Your task to perform on an android device: What's on the menu at Domino's? Image 0: 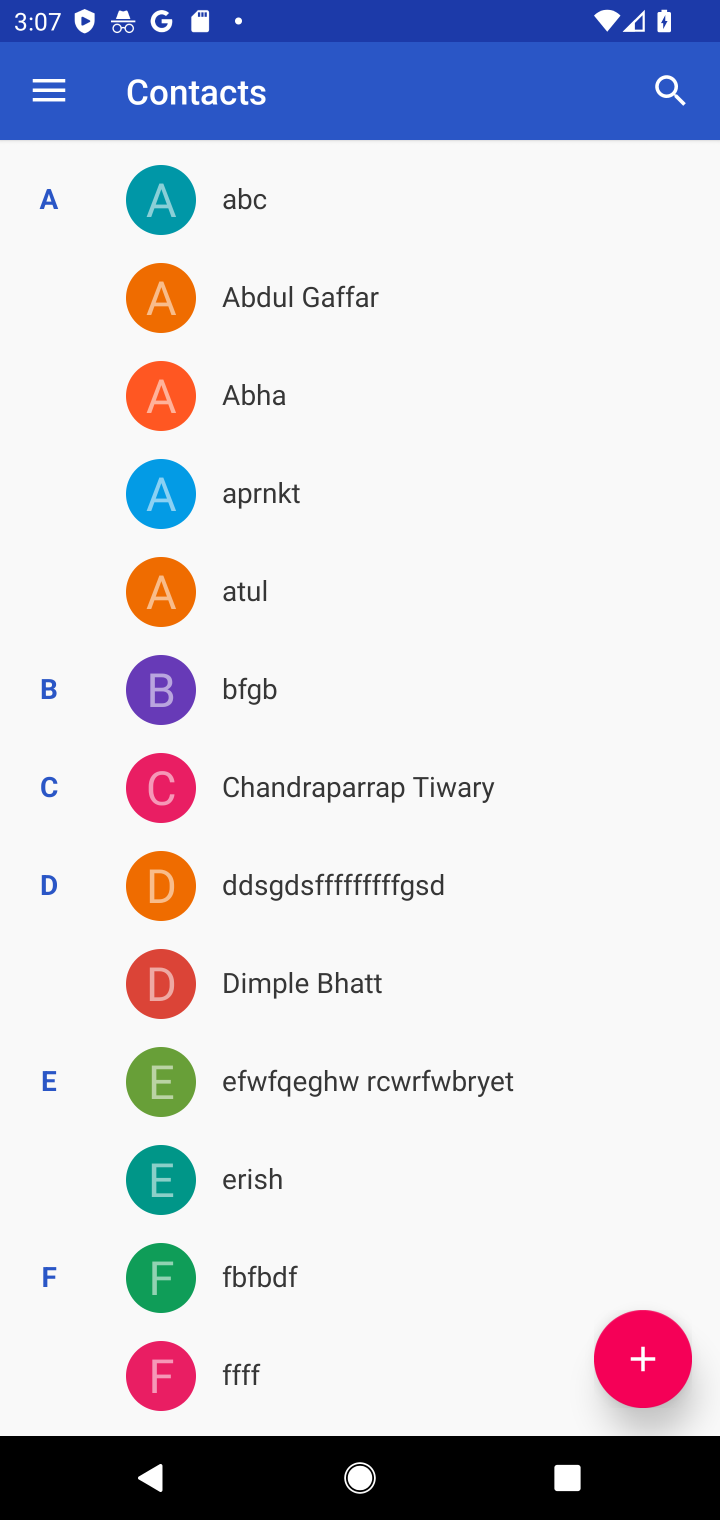
Step 0: press home button
Your task to perform on an android device: What's on the menu at Domino's? Image 1: 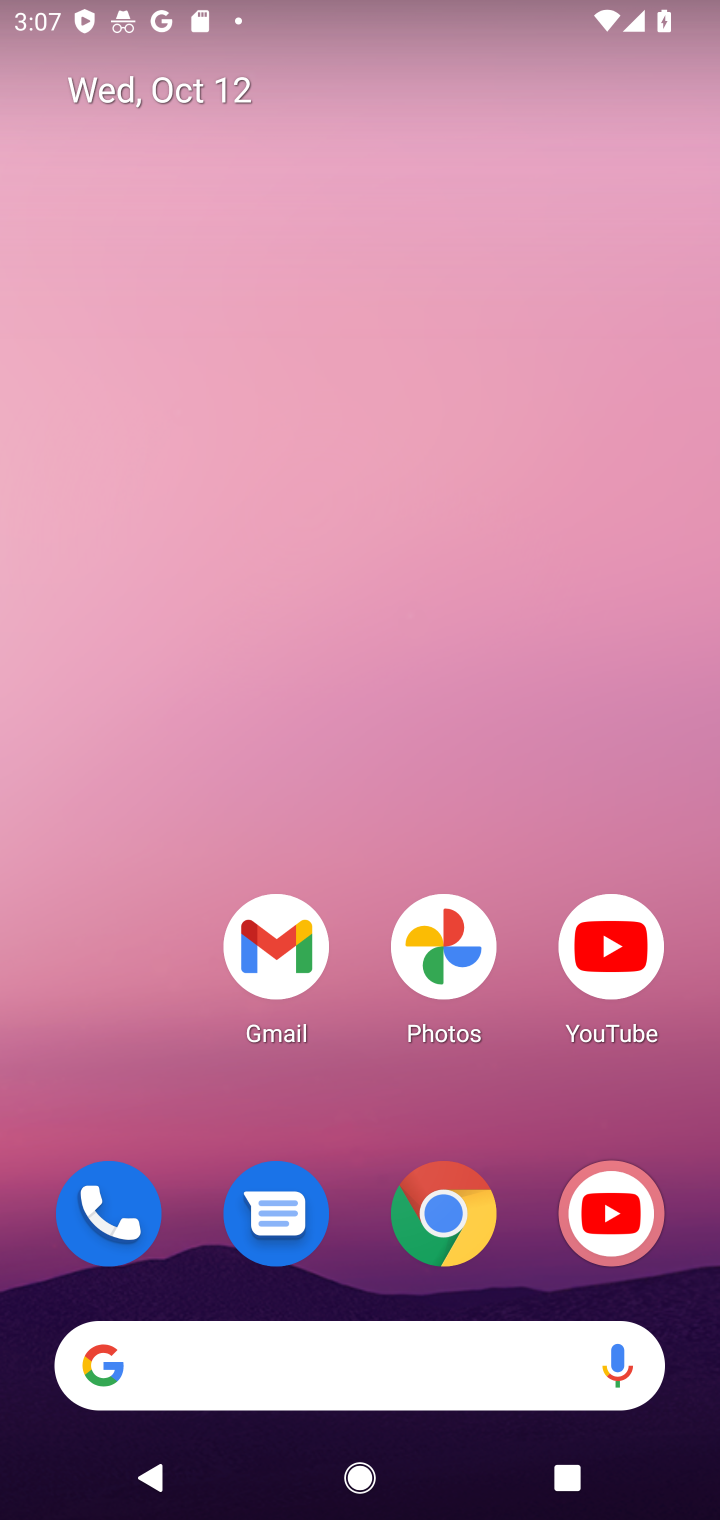
Step 1: click (307, 1360)
Your task to perform on an android device: What's on the menu at Domino's? Image 2: 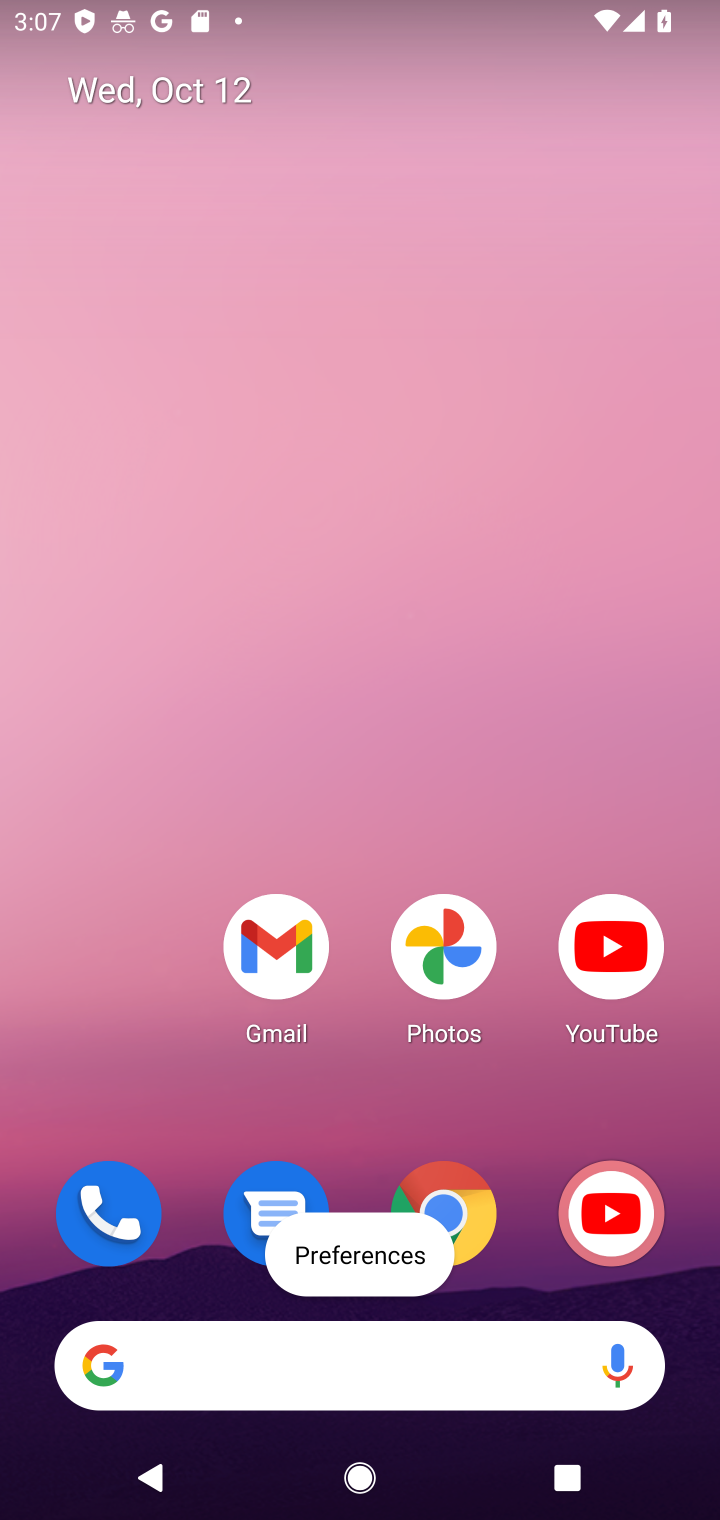
Step 2: click (242, 1365)
Your task to perform on an android device: What's on the menu at Domino's? Image 3: 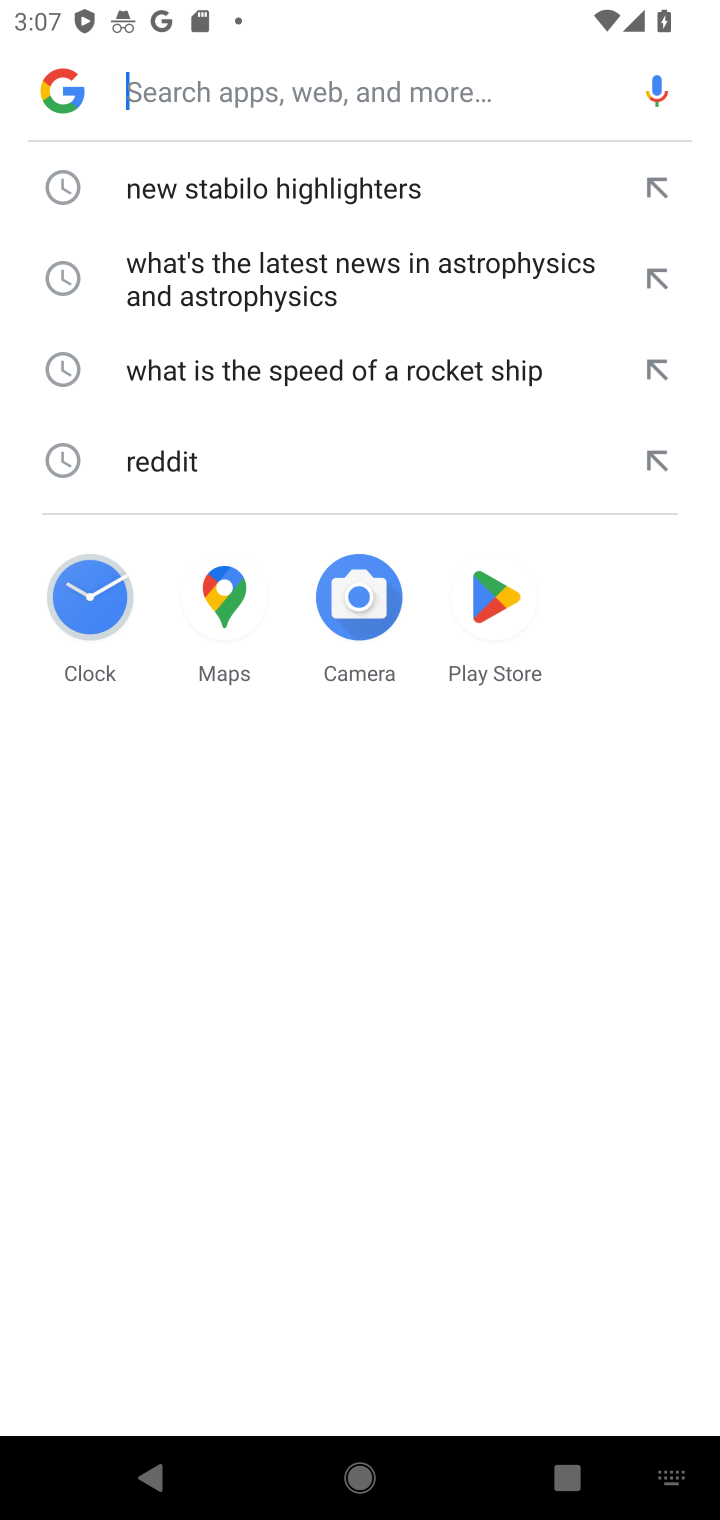
Step 3: click (231, 71)
Your task to perform on an android device: What's on the menu at Domino's? Image 4: 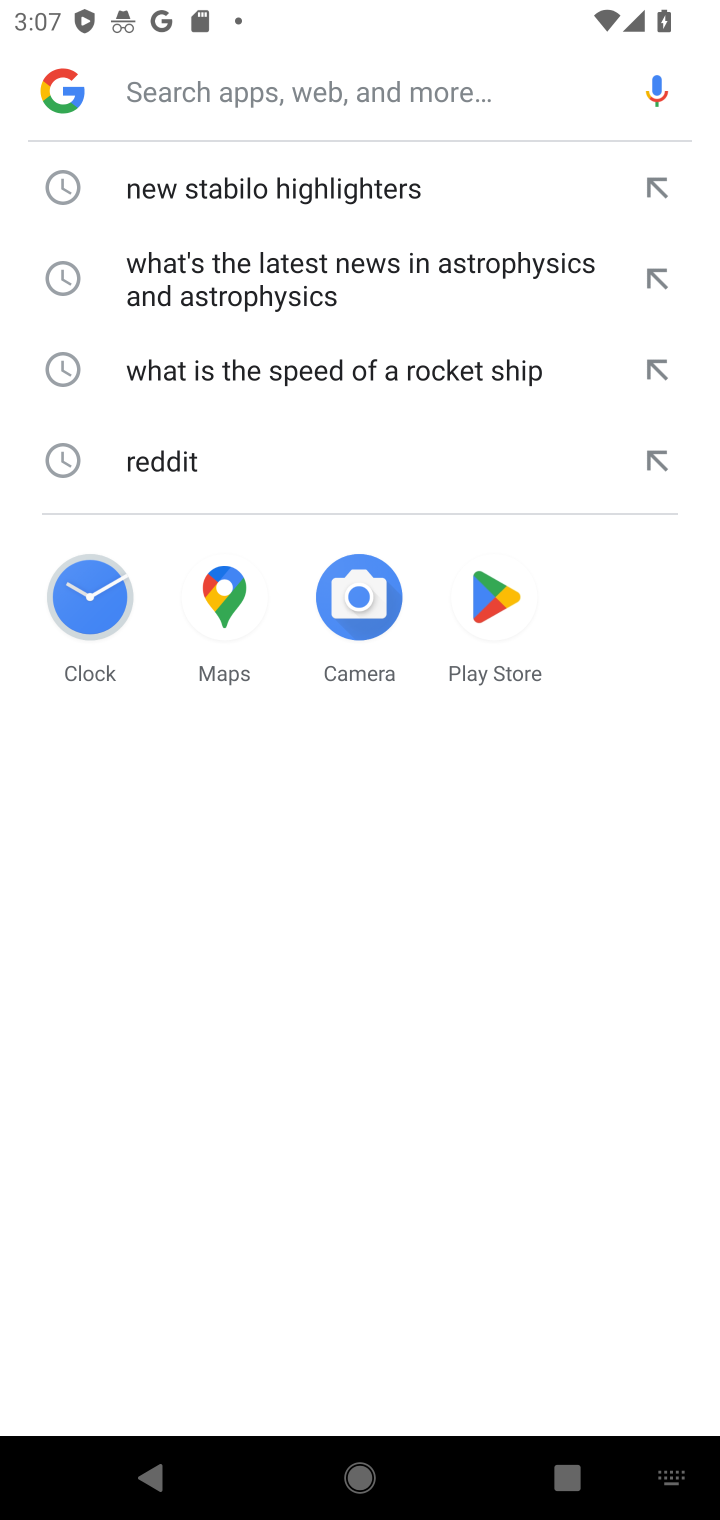
Step 4: type "menu at Domino's?"
Your task to perform on an android device: What's on the menu at Domino's? Image 5: 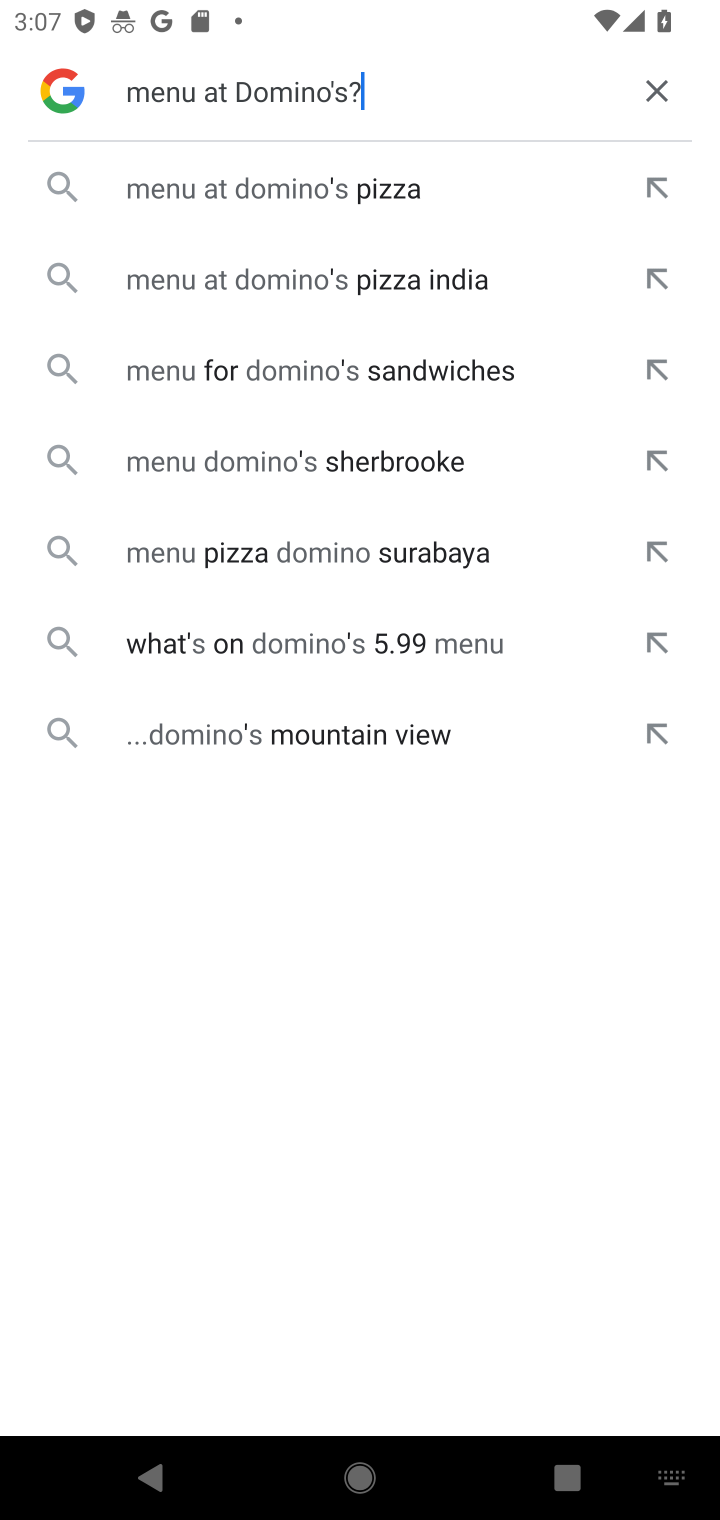
Step 5: click (292, 167)
Your task to perform on an android device: What's on the menu at Domino's? Image 6: 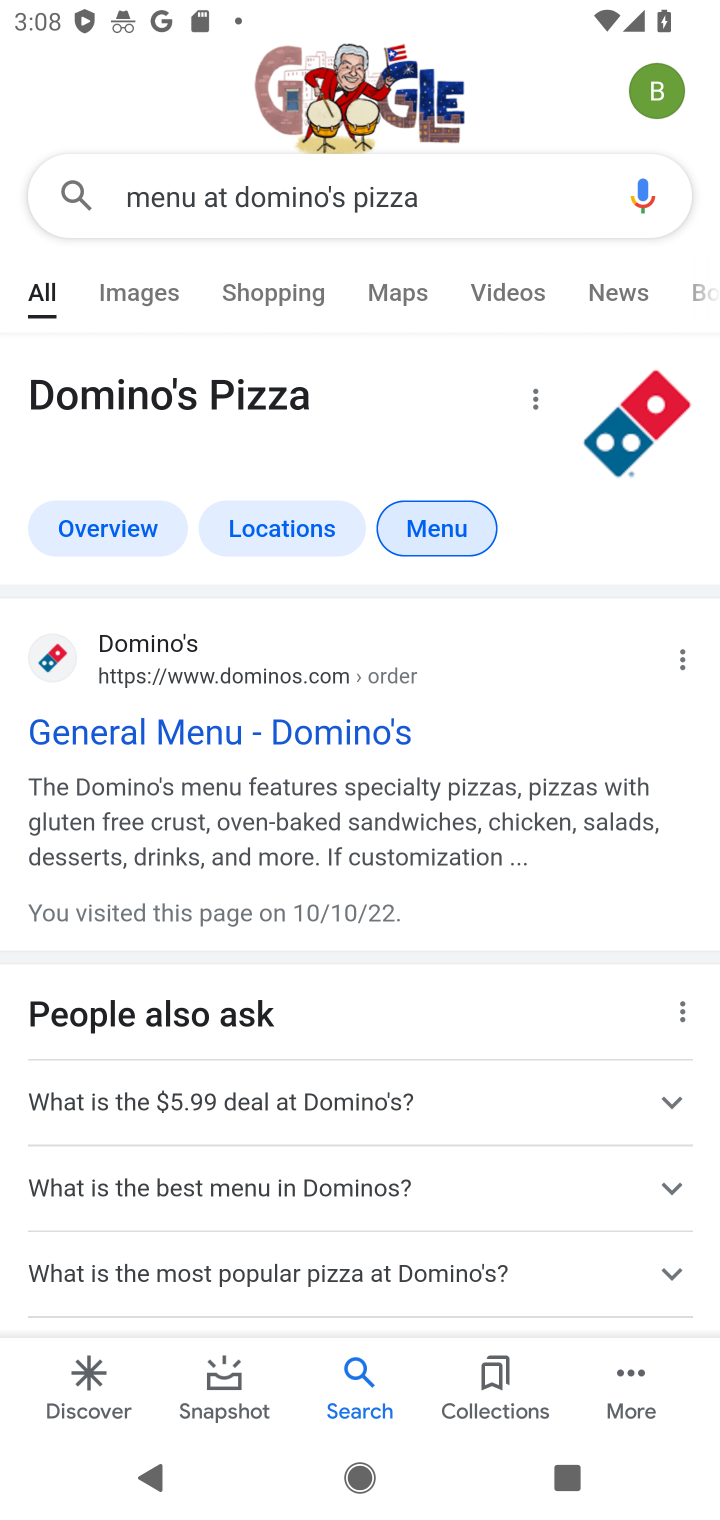
Step 6: task complete